Your task to perform on an android device: find snoozed emails in the gmail app Image 0: 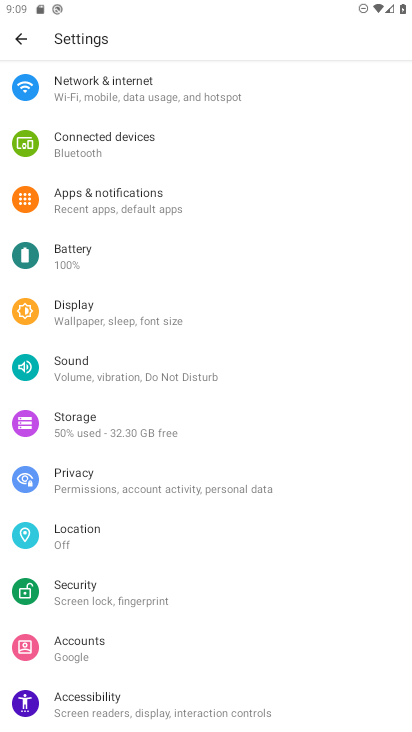
Step 0: press home button
Your task to perform on an android device: find snoozed emails in the gmail app Image 1: 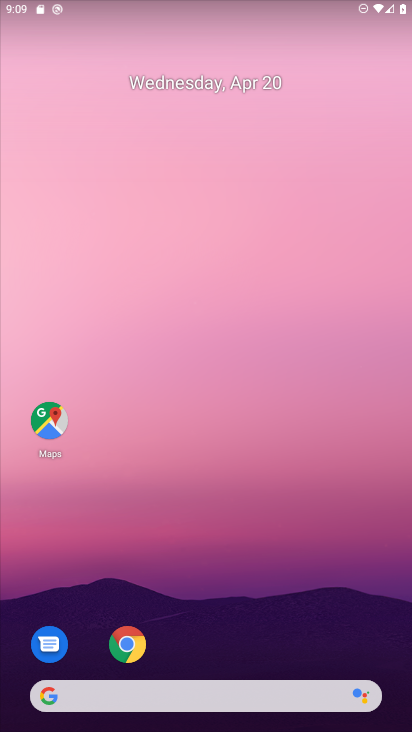
Step 1: drag from (332, 618) to (216, 85)
Your task to perform on an android device: find snoozed emails in the gmail app Image 2: 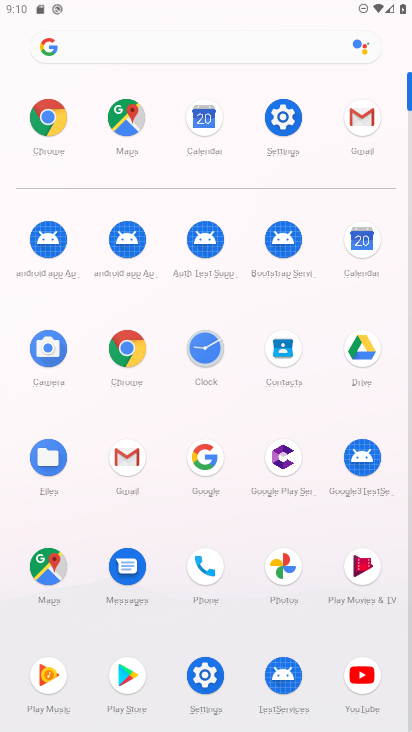
Step 2: click (121, 450)
Your task to perform on an android device: find snoozed emails in the gmail app Image 3: 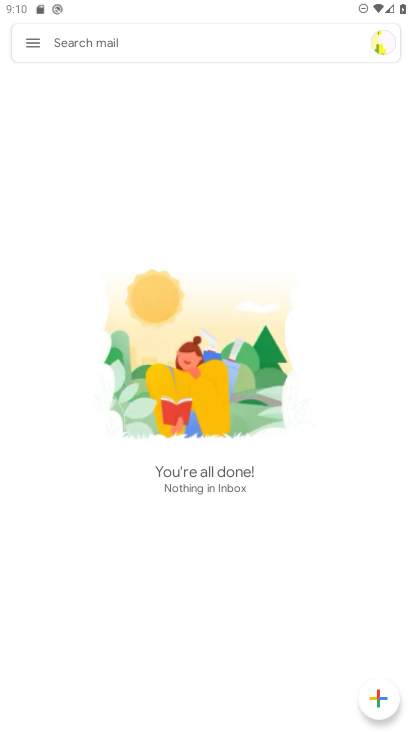
Step 3: click (38, 37)
Your task to perform on an android device: find snoozed emails in the gmail app Image 4: 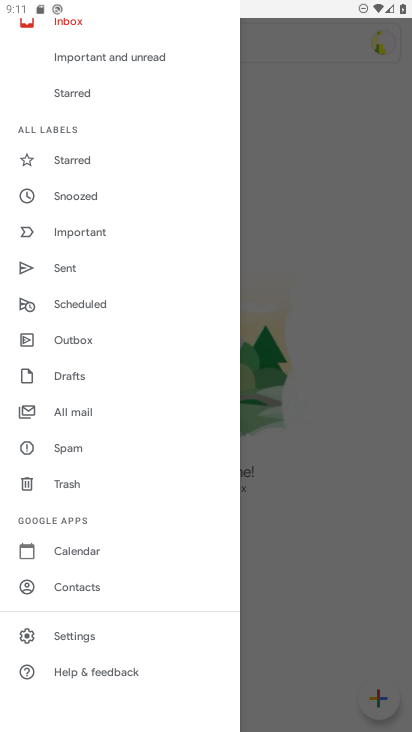
Step 4: click (86, 205)
Your task to perform on an android device: find snoozed emails in the gmail app Image 5: 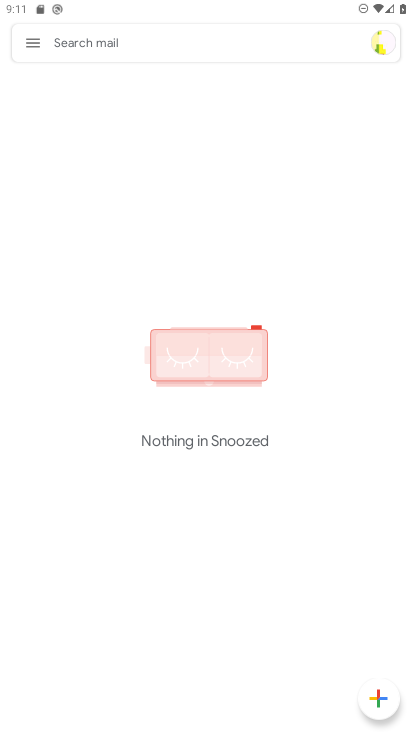
Step 5: task complete